Your task to perform on an android device: Show me the alarms in the clock app Image 0: 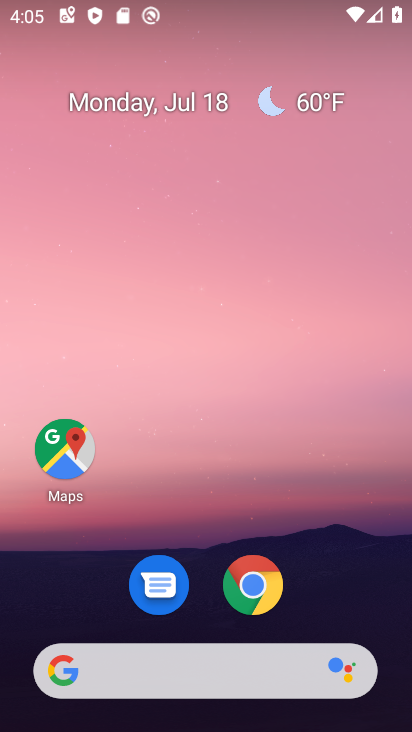
Step 0: drag from (313, 550) to (300, 0)
Your task to perform on an android device: Show me the alarms in the clock app Image 1: 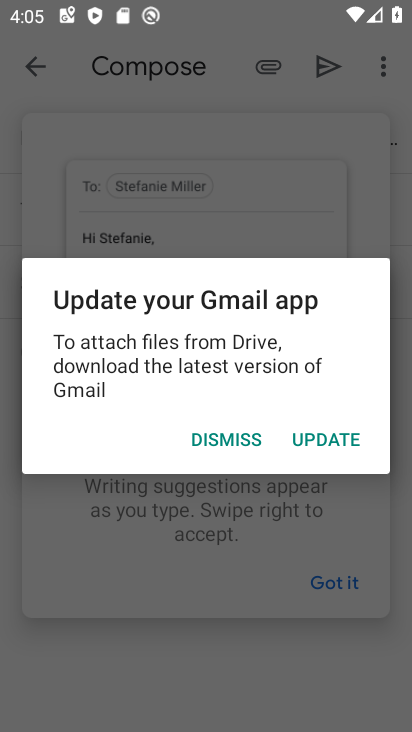
Step 1: press home button
Your task to perform on an android device: Show me the alarms in the clock app Image 2: 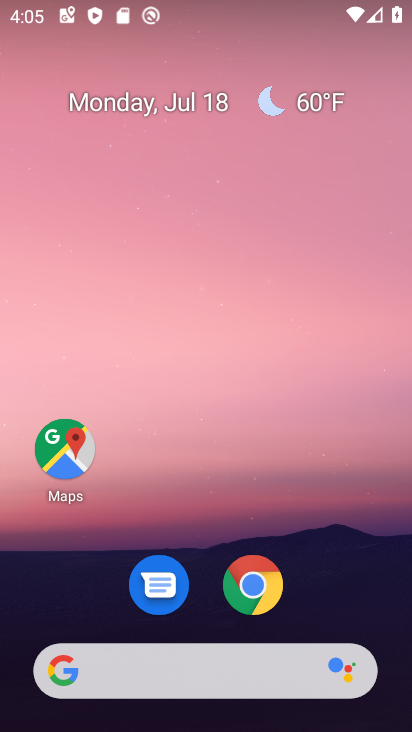
Step 2: drag from (348, 570) to (348, 43)
Your task to perform on an android device: Show me the alarms in the clock app Image 3: 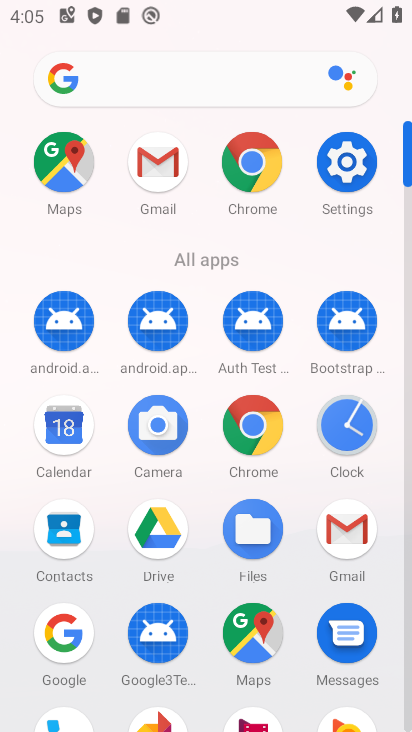
Step 3: click (339, 436)
Your task to perform on an android device: Show me the alarms in the clock app Image 4: 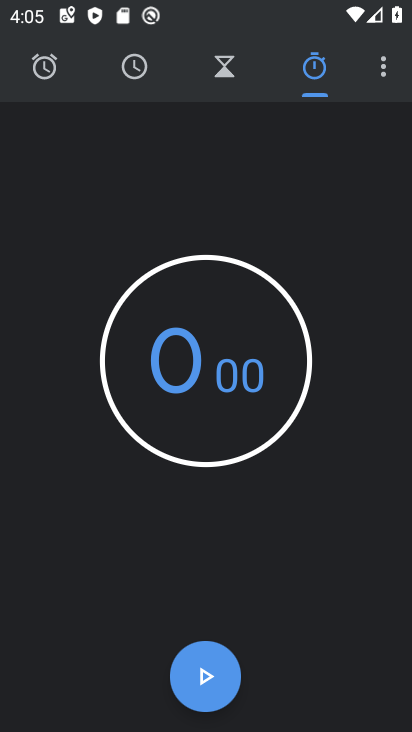
Step 4: click (49, 73)
Your task to perform on an android device: Show me the alarms in the clock app Image 5: 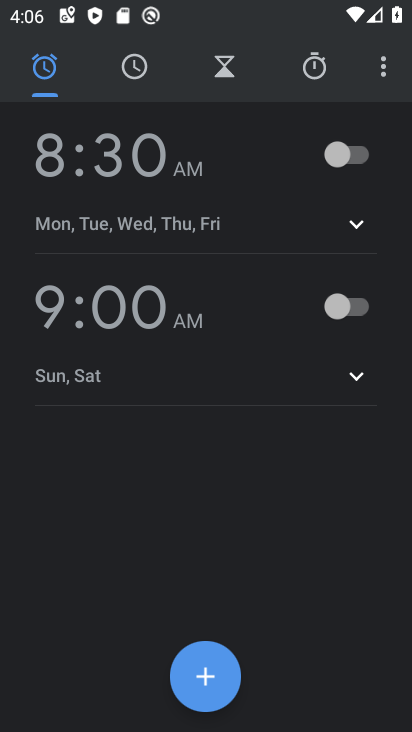
Step 5: task complete